Your task to perform on an android device: change notification settings in the gmail app Image 0: 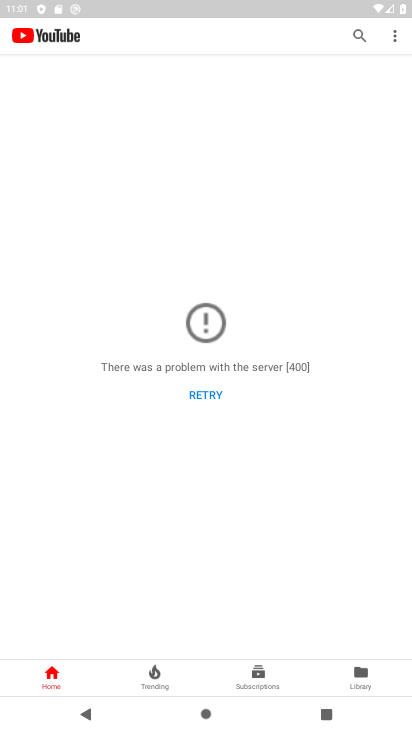
Step 0: press home button
Your task to perform on an android device: change notification settings in the gmail app Image 1: 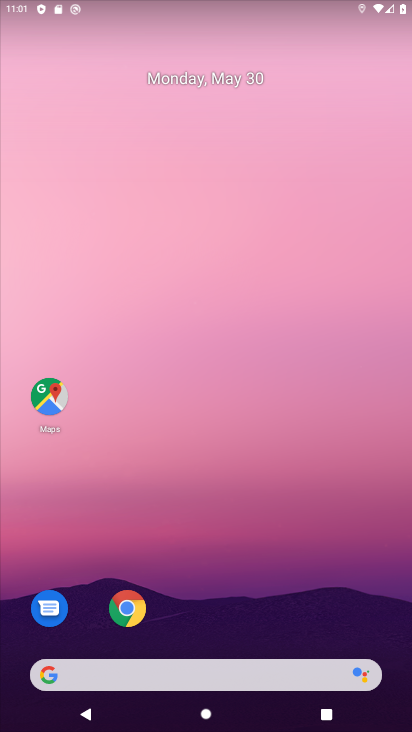
Step 1: drag from (342, 635) to (336, 3)
Your task to perform on an android device: change notification settings in the gmail app Image 2: 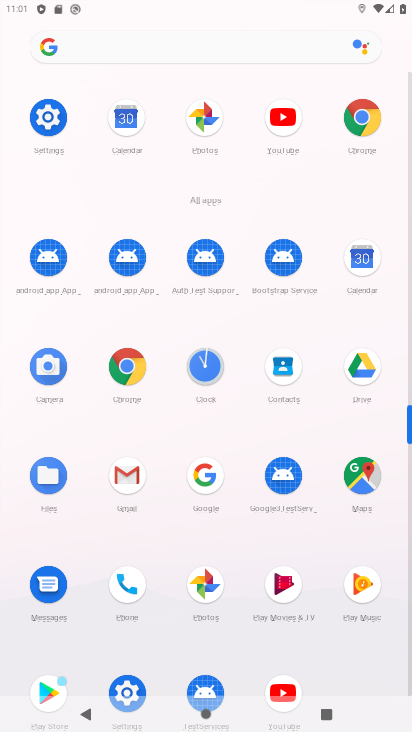
Step 2: click (129, 473)
Your task to perform on an android device: change notification settings in the gmail app Image 3: 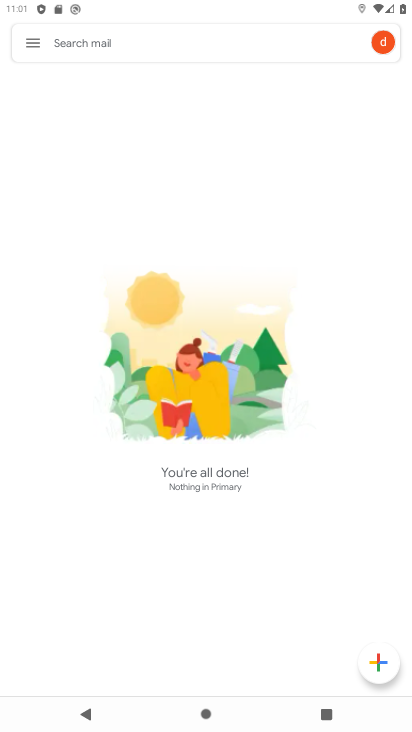
Step 3: click (30, 42)
Your task to perform on an android device: change notification settings in the gmail app Image 4: 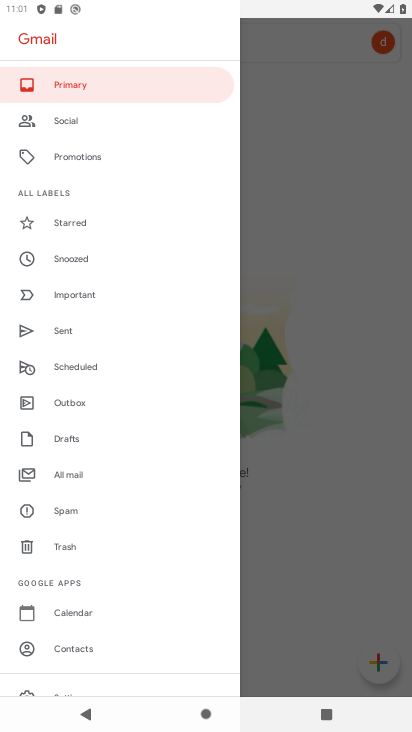
Step 4: drag from (137, 621) to (135, 381)
Your task to perform on an android device: change notification settings in the gmail app Image 5: 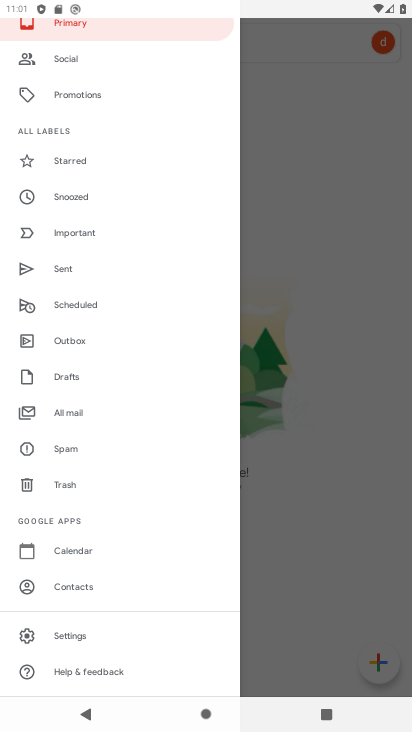
Step 5: click (60, 636)
Your task to perform on an android device: change notification settings in the gmail app Image 6: 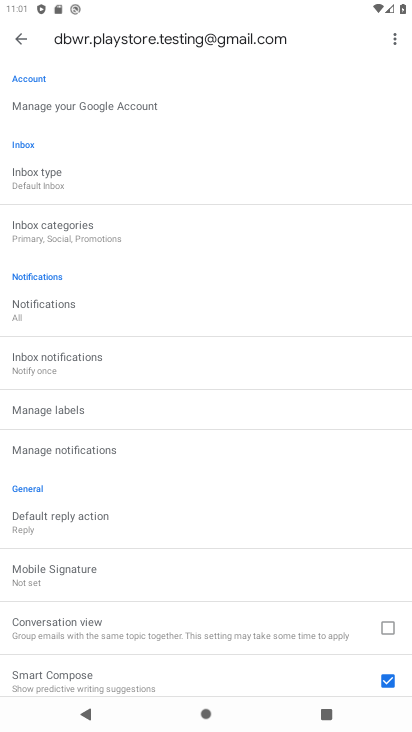
Step 6: click (22, 41)
Your task to perform on an android device: change notification settings in the gmail app Image 7: 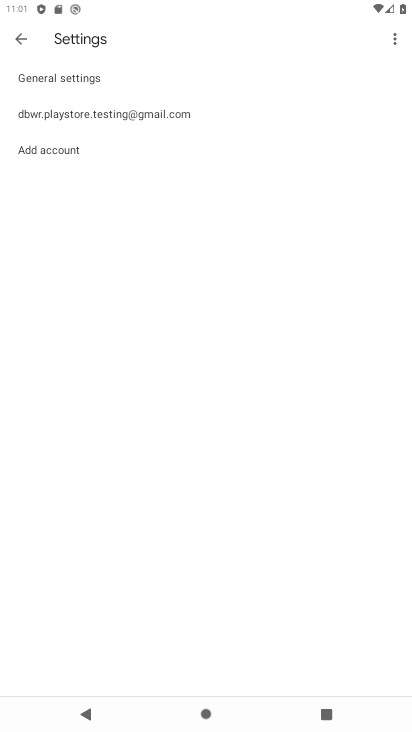
Step 7: click (43, 76)
Your task to perform on an android device: change notification settings in the gmail app Image 8: 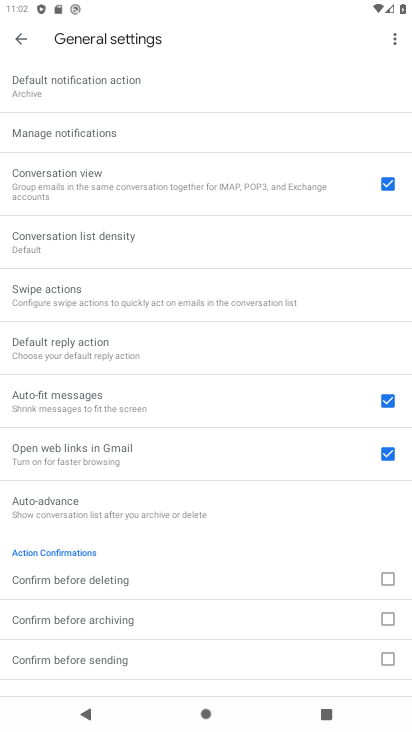
Step 8: click (58, 132)
Your task to perform on an android device: change notification settings in the gmail app Image 9: 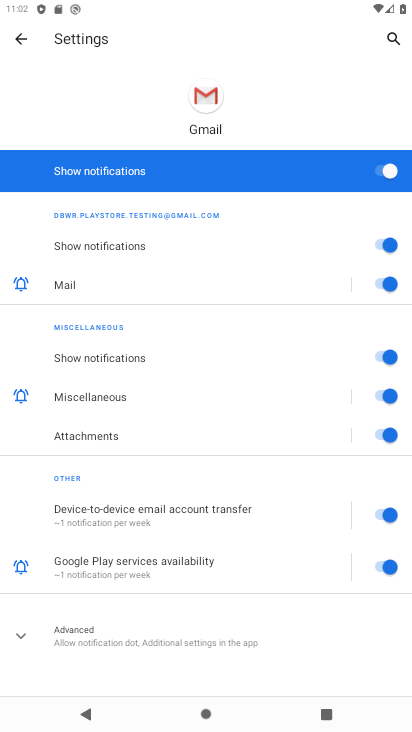
Step 9: click (394, 176)
Your task to perform on an android device: change notification settings in the gmail app Image 10: 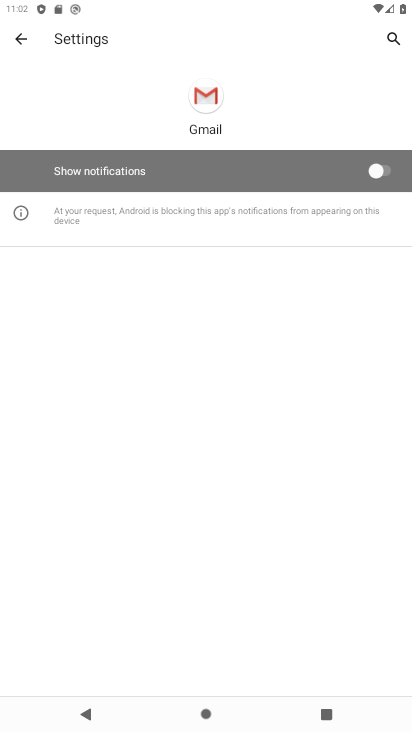
Step 10: task complete